Your task to perform on an android device: turn on the 12-hour format for clock Image 0: 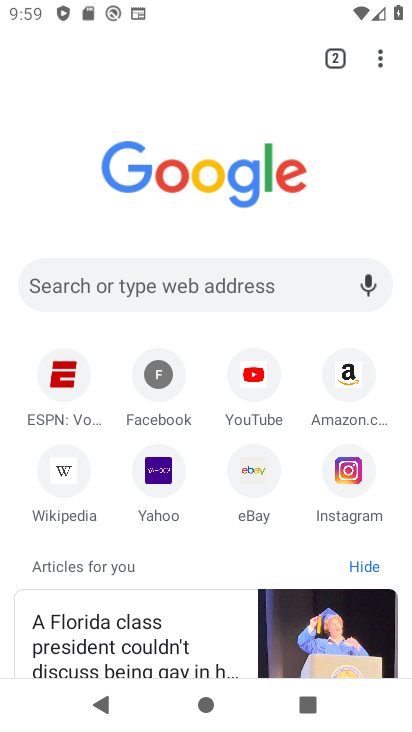
Step 0: press back button
Your task to perform on an android device: turn on the 12-hour format for clock Image 1: 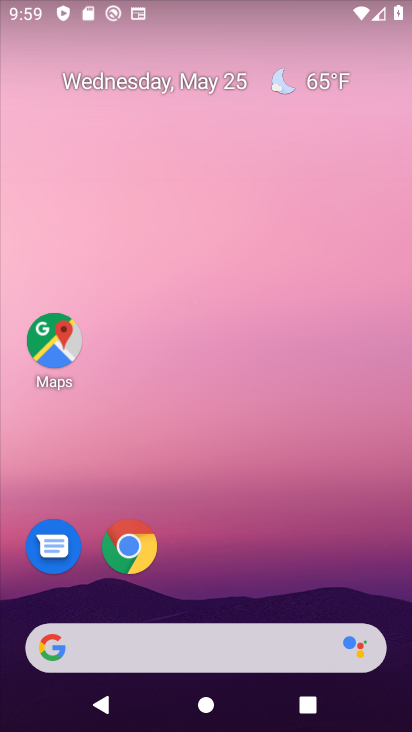
Step 1: drag from (265, 523) to (154, 12)
Your task to perform on an android device: turn on the 12-hour format for clock Image 2: 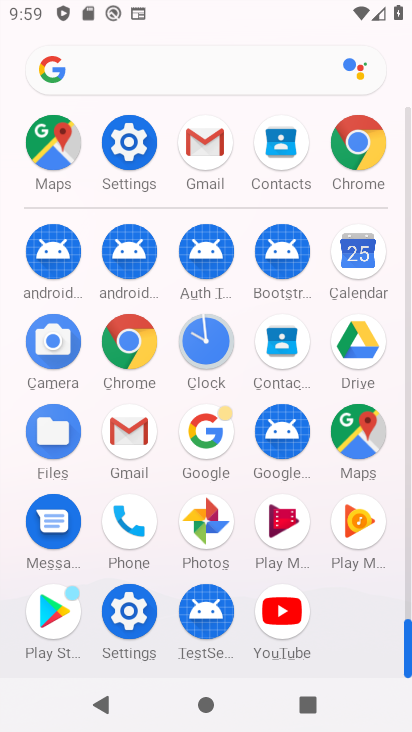
Step 2: drag from (12, 596) to (10, 290)
Your task to perform on an android device: turn on the 12-hour format for clock Image 3: 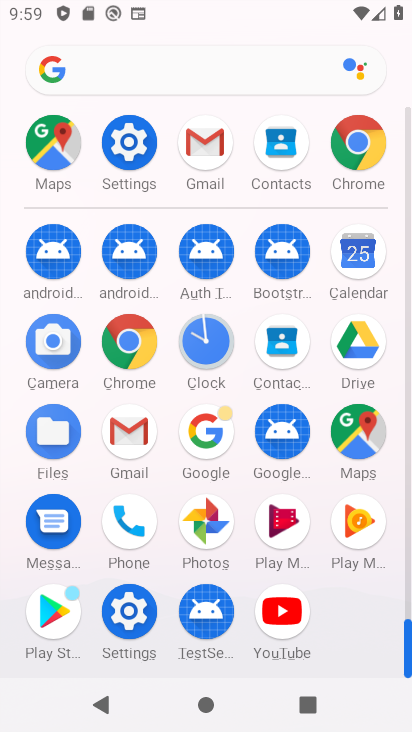
Step 3: click (203, 342)
Your task to perform on an android device: turn on the 12-hour format for clock Image 4: 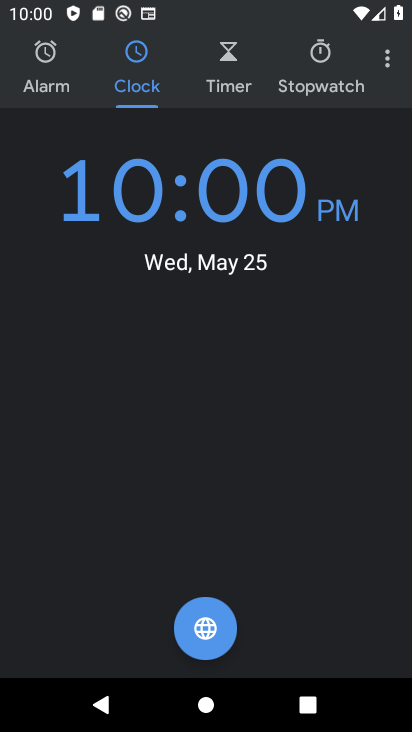
Step 4: drag from (388, 59) to (341, 109)
Your task to perform on an android device: turn on the 12-hour format for clock Image 5: 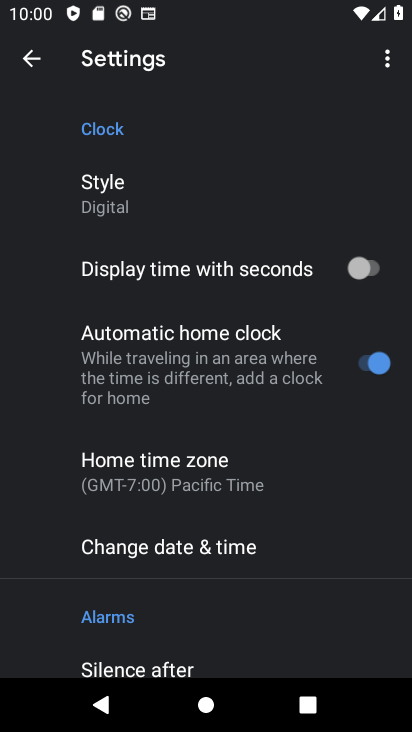
Step 5: click (244, 542)
Your task to perform on an android device: turn on the 12-hour format for clock Image 6: 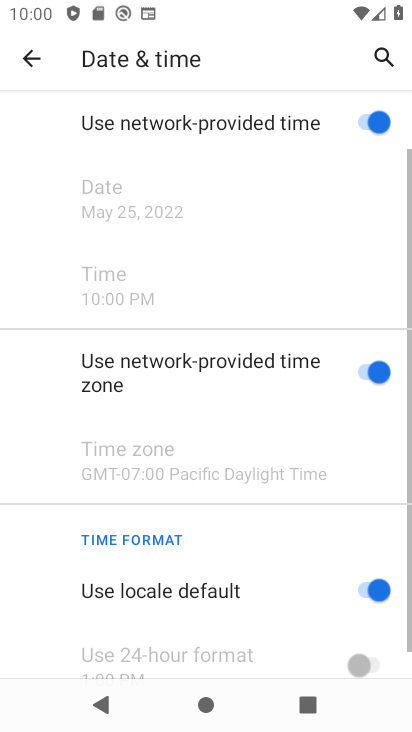
Step 6: drag from (210, 574) to (227, 166)
Your task to perform on an android device: turn on the 12-hour format for clock Image 7: 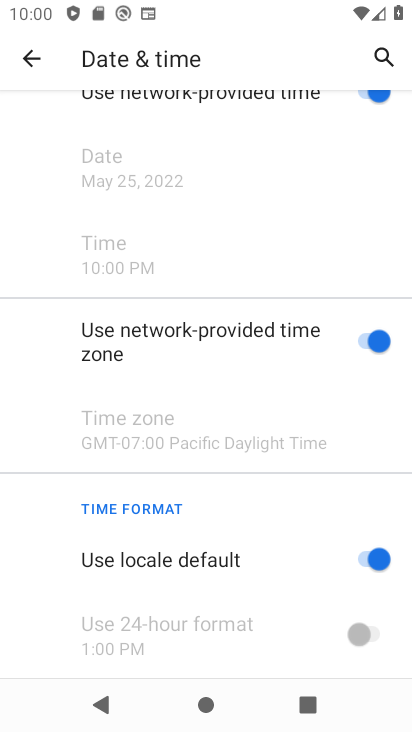
Step 7: click (376, 556)
Your task to perform on an android device: turn on the 12-hour format for clock Image 8: 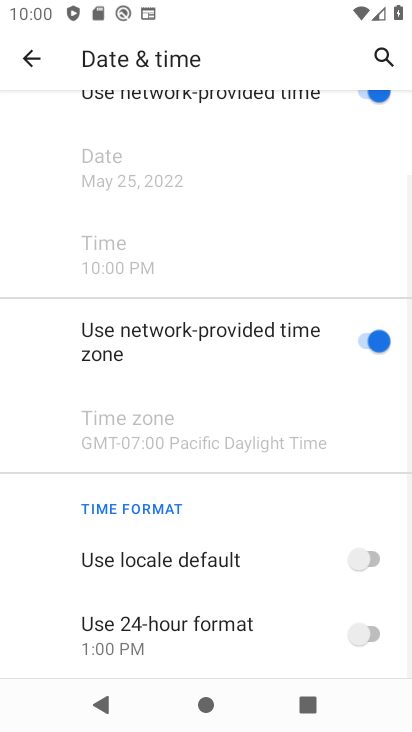
Step 8: click (364, 557)
Your task to perform on an android device: turn on the 12-hour format for clock Image 9: 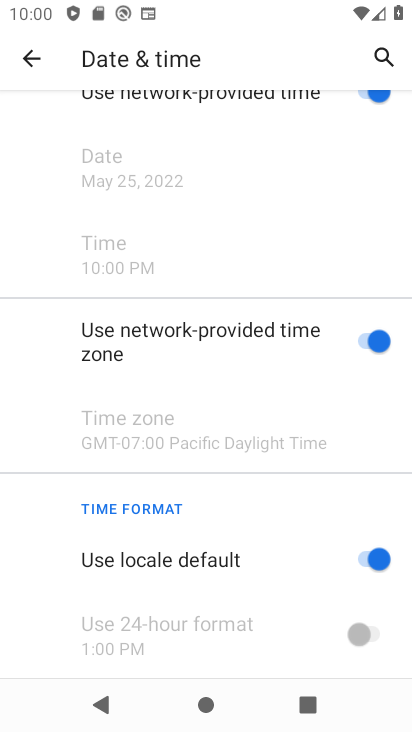
Step 9: task complete